Your task to perform on an android device: toggle location history Image 0: 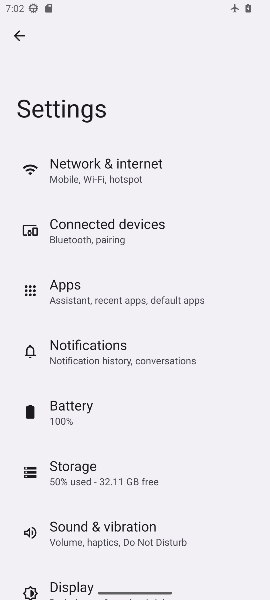
Step 0: press home button
Your task to perform on an android device: toggle location history Image 1: 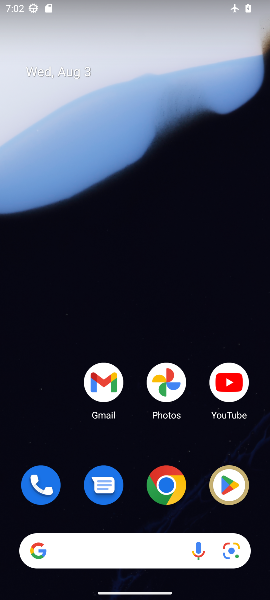
Step 1: drag from (205, 442) to (146, 26)
Your task to perform on an android device: toggle location history Image 2: 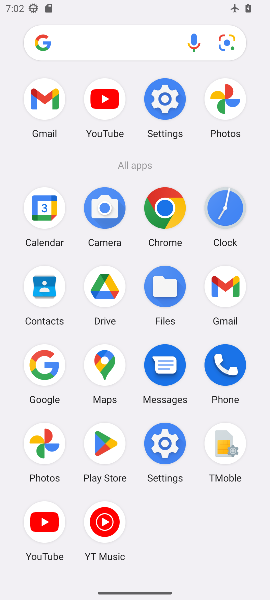
Step 2: click (103, 363)
Your task to perform on an android device: toggle location history Image 3: 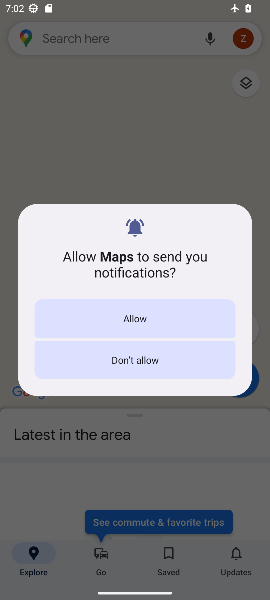
Step 3: click (125, 327)
Your task to perform on an android device: toggle location history Image 4: 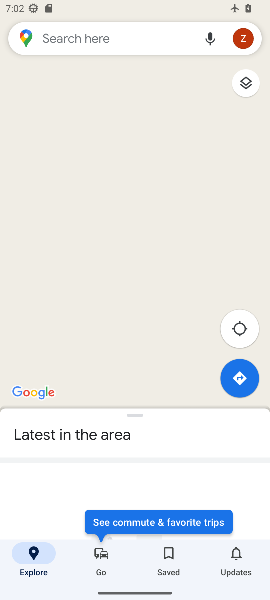
Step 4: click (247, 43)
Your task to perform on an android device: toggle location history Image 5: 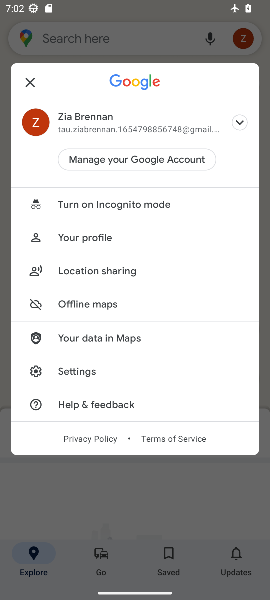
Step 5: click (140, 373)
Your task to perform on an android device: toggle location history Image 6: 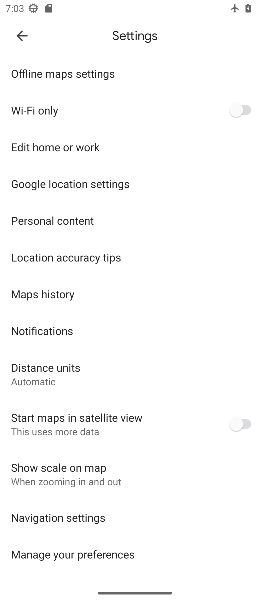
Step 6: drag from (176, 490) to (130, 272)
Your task to perform on an android device: toggle location history Image 7: 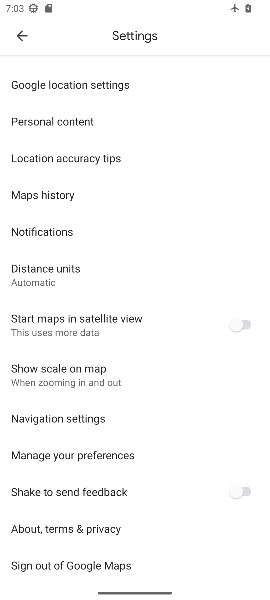
Step 7: click (88, 202)
Your task to perform on an android device: toggle location history Image 8: 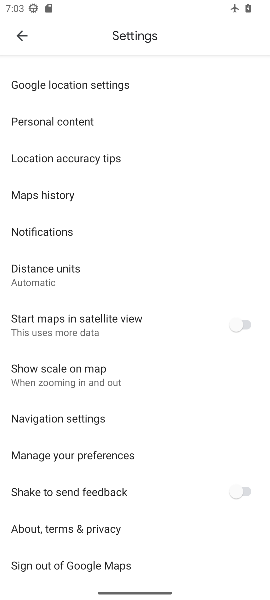
Step 8: task complete